Your task to perform on an android device: change keyboard looks Image 0: 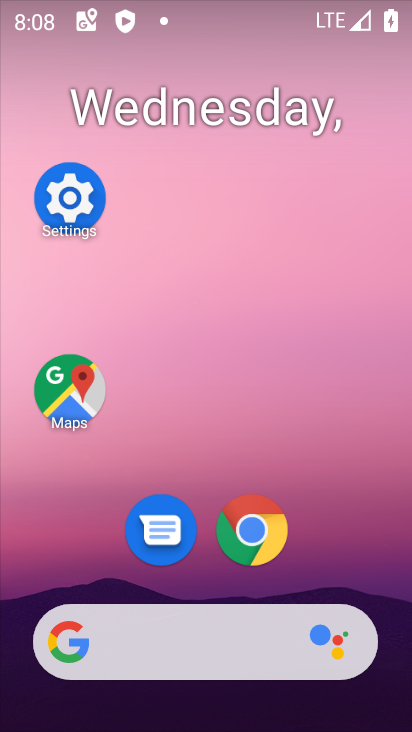
Step 0: click (95, 174)
Your task to perform on an android device: change keyboard looks Image 1: 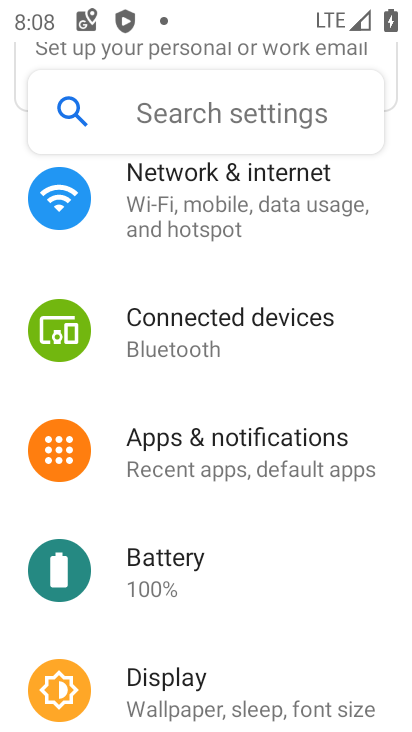
Step 1: drag from (282, 631) to (230, 202)
Your task to perform on an android device: change keyboard looks Image 2: 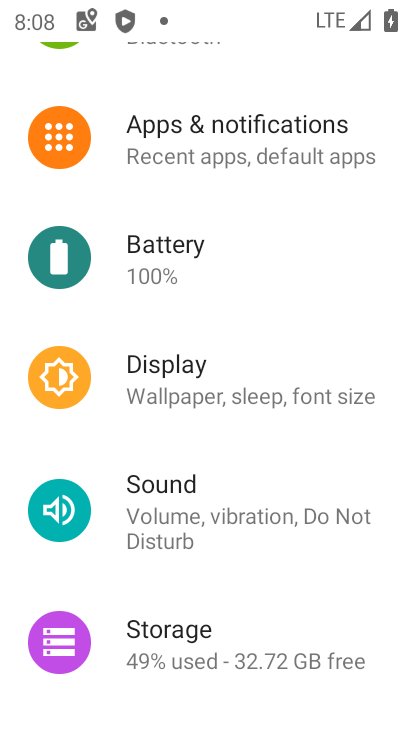
Step 2: drag from (258, 597) to (204, 94)
Your task to perform on an android device: change keyboard looks Image 3: 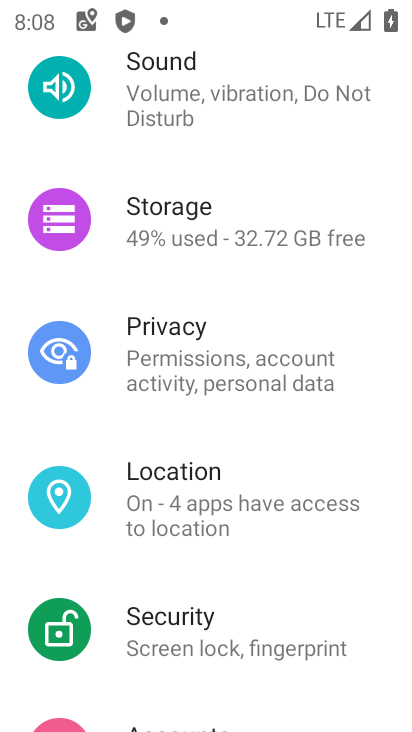
Step 3: drag from (272, 574) to (244, 77)
Your task to perform on an android device: change keyboard looks Image 4: 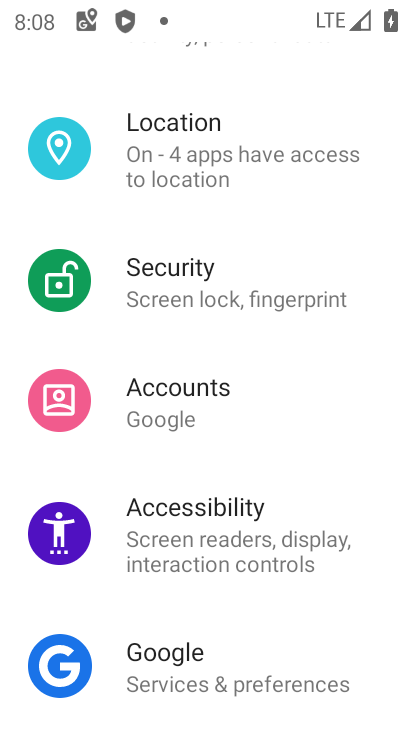
Step 4: drag from (329, 597) to (305, 277)
Your task to perform on an android device: change keyboard looks Image 5: 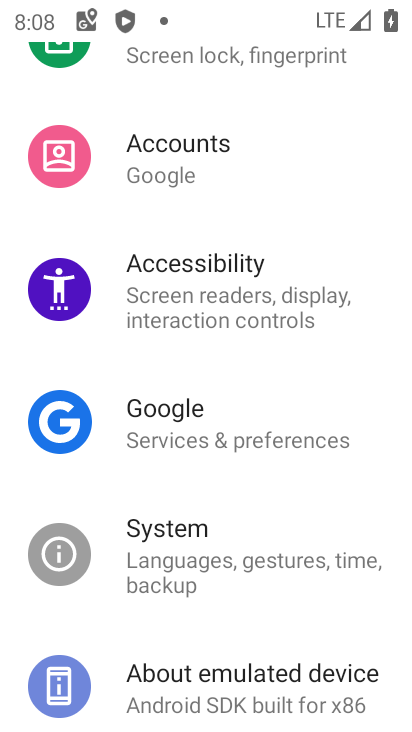
Step 5: click (237, 550)
Your task to perform on an android device: change keyboard looks Image 6: 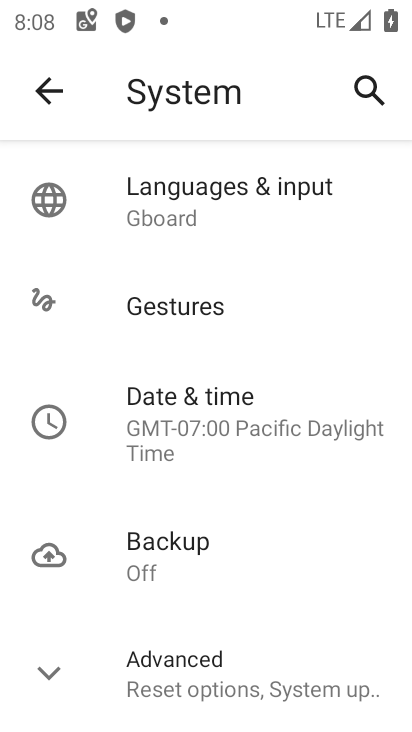
Step 6: click (223, 180)
Your task to perform on an android device: change keyboard looks Image 7: 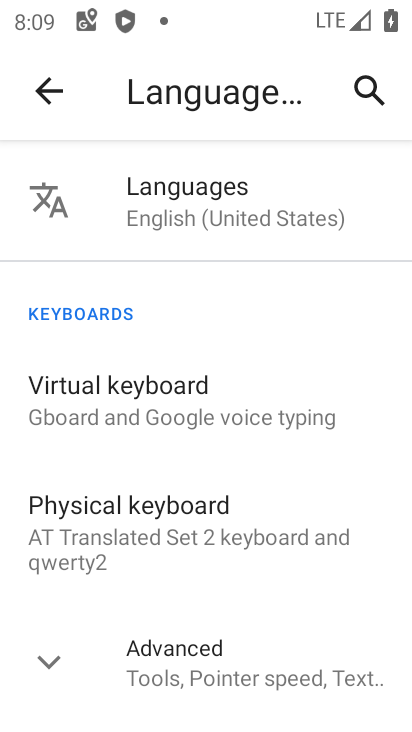
Step 7: click (194, 427)
Your task to perform on an android device: change keyboard looks Image 8: 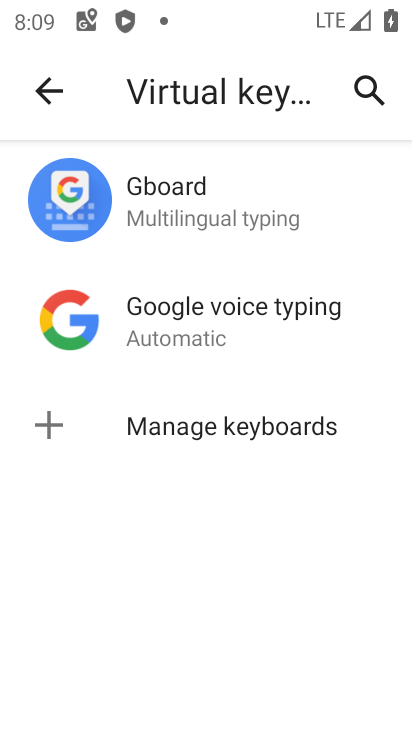
Step 8: click (142, 192)
Your task to perform on an android device: change keyboard looks Image 9: 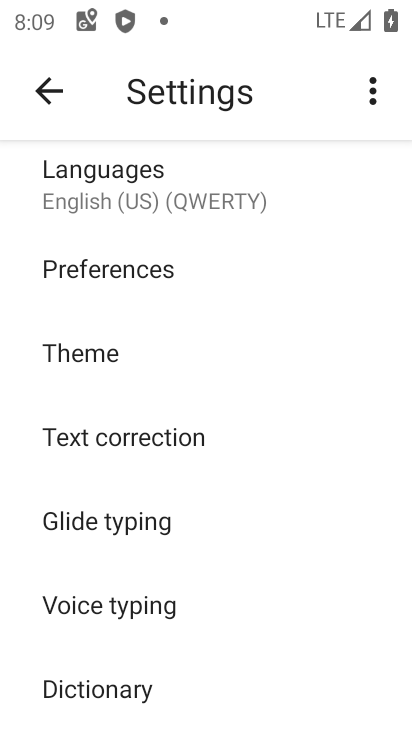
Step 9: click (128, 356)
Your task to perform on an android device: change keyboard looks Image 10: 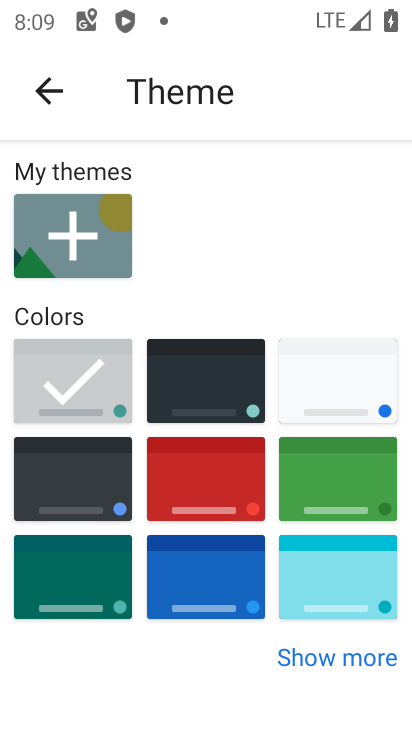
Step 10: click (268, 397)
Your task to perform on an android device: change keyboard looks Image 11: 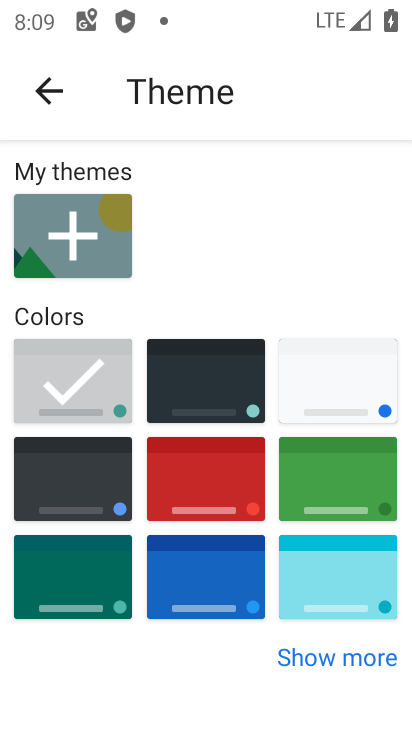
Step 11: click (256, 407)
Your task to perform on an android device: change keyboard looks Image 12: 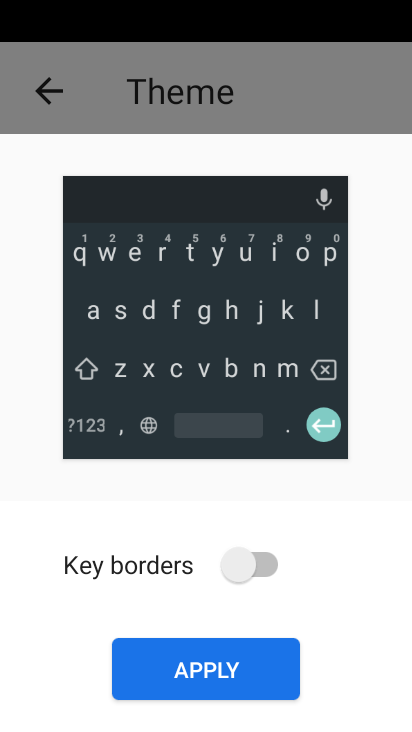
Step 12: click (253, 580)
Your task to perform on an android device: change keyboard looks Image 13: 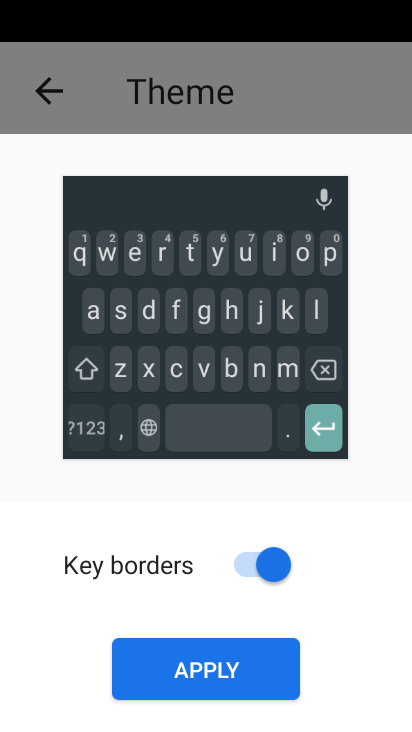
Step 13: click (231, 664)
Your task to perform on an android device: change keyboard looks Image 14: 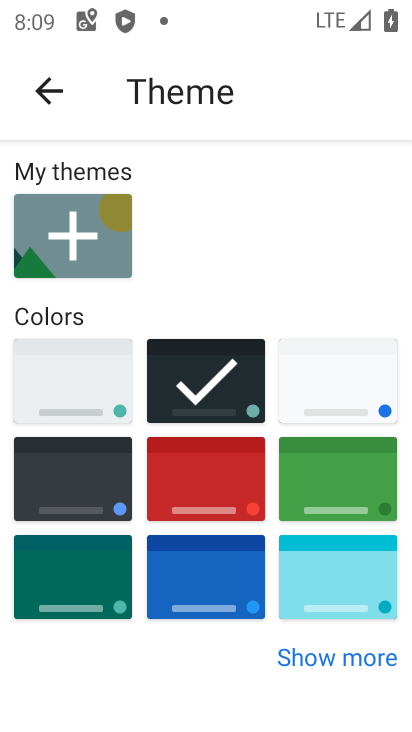
Step 14: task complete